Your task to perform on an android device: turn off notifications in google photos Image 0: 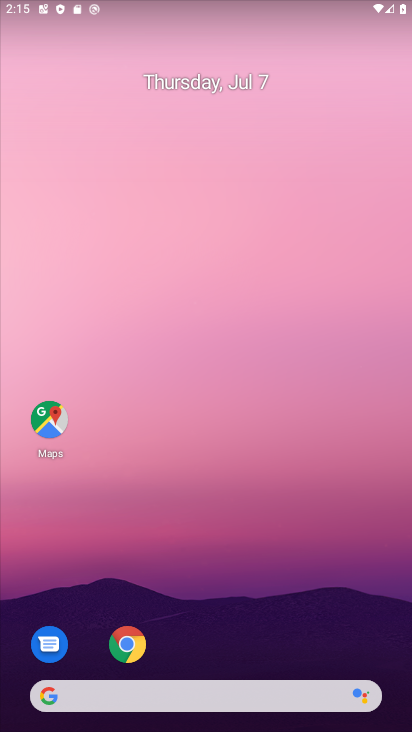
Step 0: press home button
Your task to perform on an android device: turn off notifications in google photos Image 1: 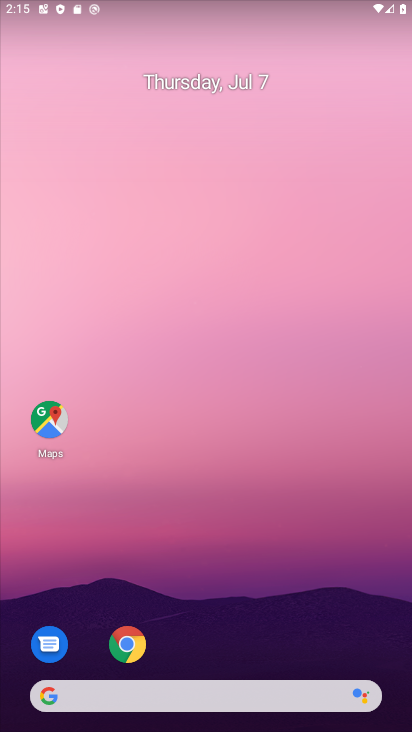
Step 1: drag from (203, 652) to (161, 228)
Your task to perform on an android device: turn off notifications in google photos Image 2: 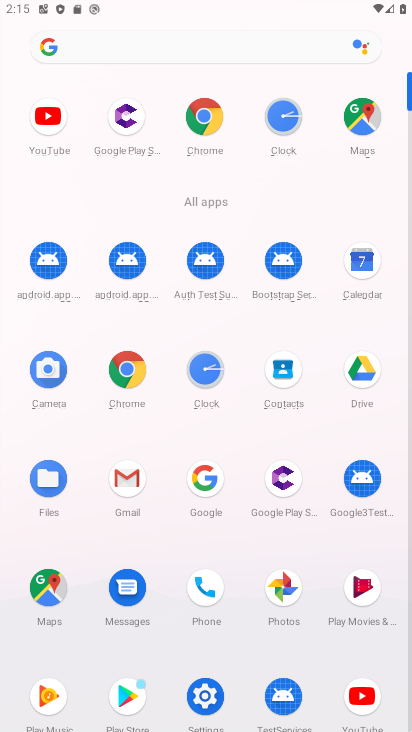
Step 2: click (278, 584)
Your task to perform on an android device: turn off notifications in google photos Image 3: 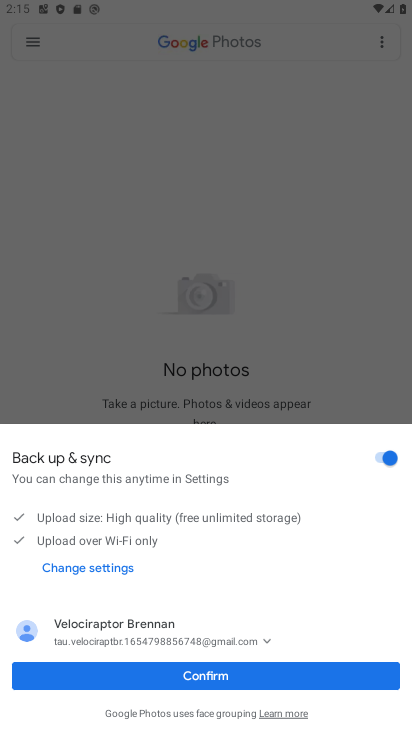
Step 3: click (204, 682)
Your task to perform on an android device: turn off notifications in google photos Image 4: 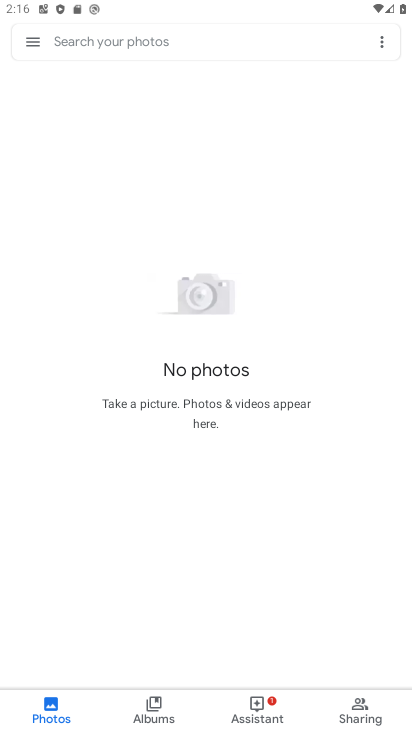
Step 4: click (30, 38)
Your task to perform on an android device: turn off notifications in google photos Image 5: 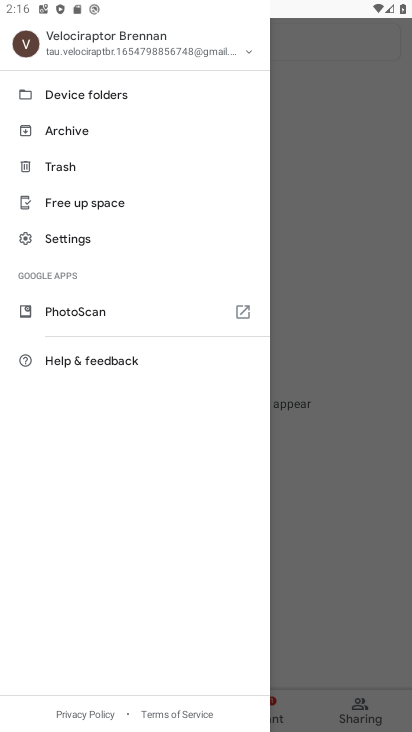
Step 5: click (74, 240)
Your task to perform on an android device: turn off notifications in google photos Image 6: 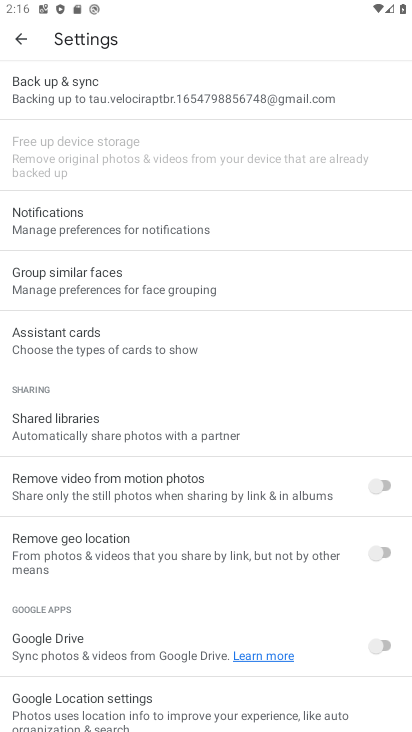
Step 6: click (38, 215)
Your task to perform on an android device: turn off notifications in google photos Image 7: 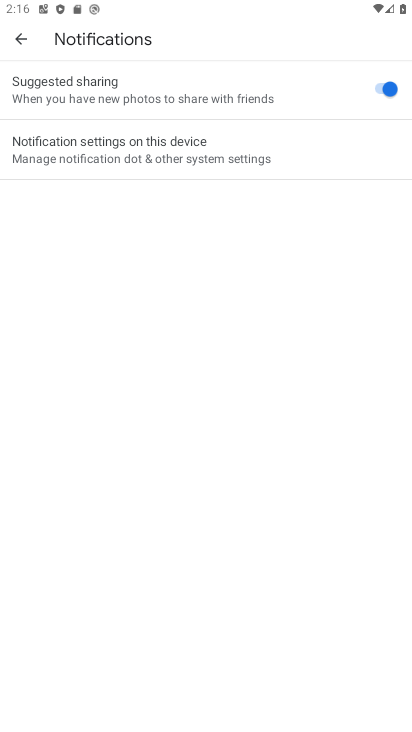
Step 7: click (392, 93)
Your task to perform on an android device: turn off notifications in google photos Image 8: 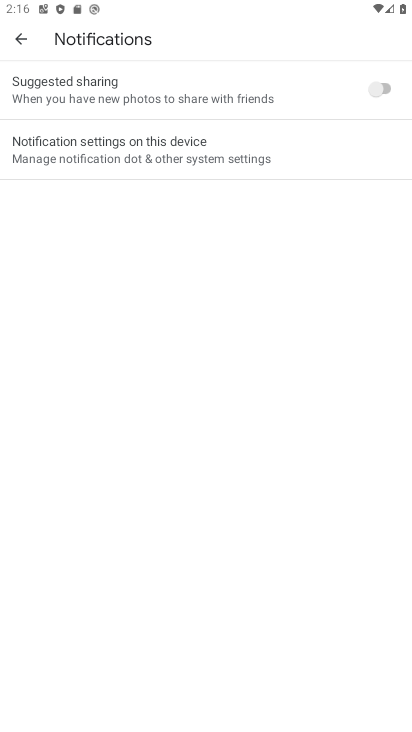
Step 8: task complete